Your task to perform on an android device: Open calendar and show me the third week of next month Image 0: 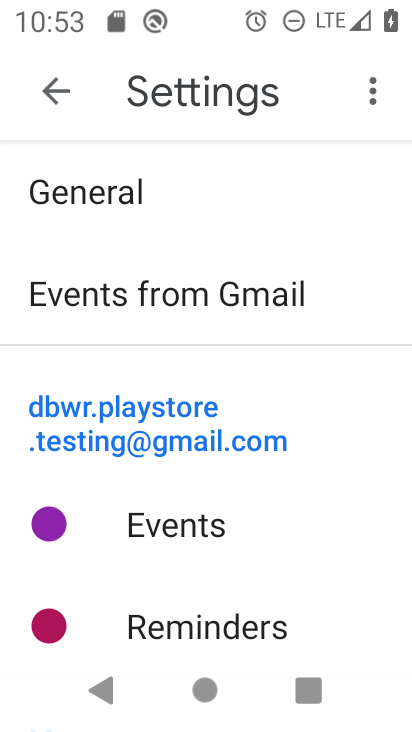
Step 0: press home button
Your task to perform on an android device: Open calendar and show me the third week of next month Image 1: 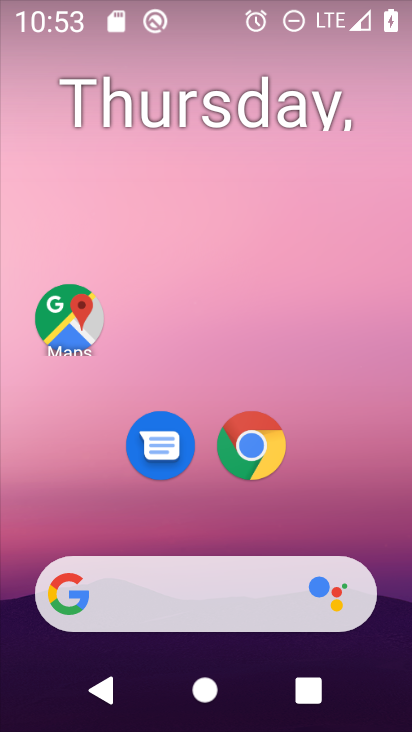
Step 1: drag from (403, 633) to (349, 56)
Your task to perform on an android device: Open calendar and show me the third week of next month Image 2: 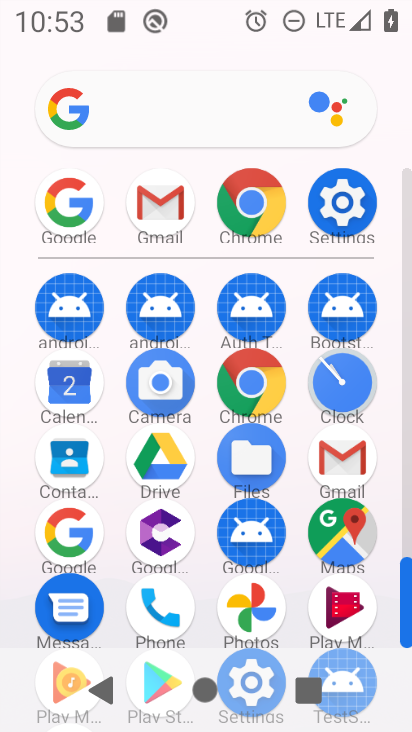
Step 2: click (337, 38)
Your task to perform on an android device: Open calendar and show me the third week of next month Image 3: 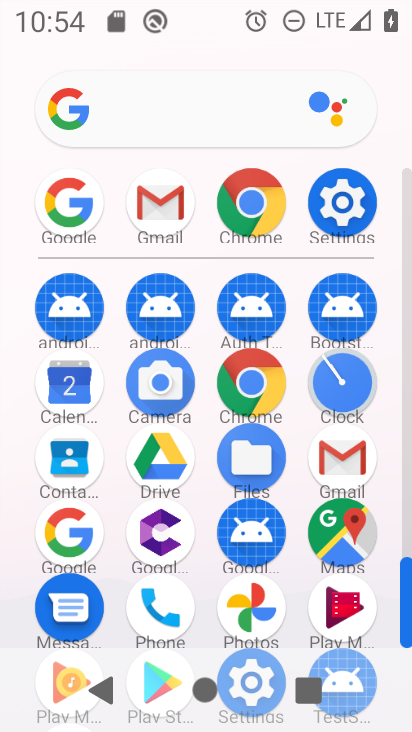
Step 3: click (75, 396)
Your task to perform on an android device: Open calendar and show me the third week of next month Image 4: 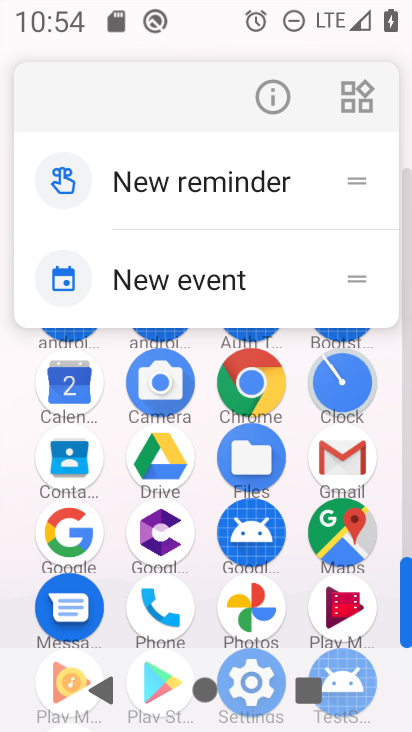
Step 4: click (66, 378)
Your task to perform on an android device: Open calendar and show me the third week of next month Image 5: 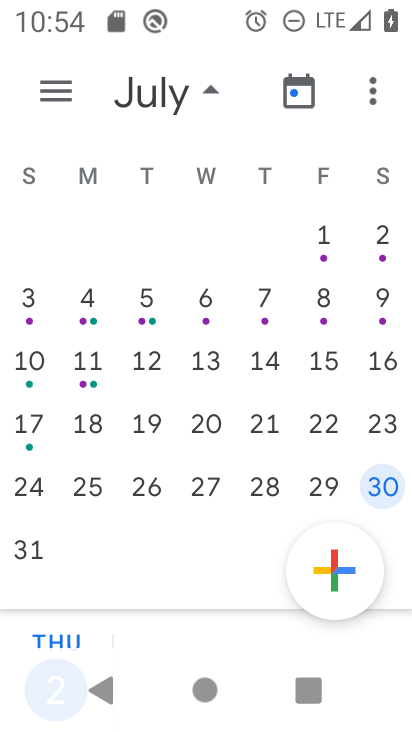
Step 5: drag from (396, 357) to (28, 370)
Your task to perform on an android device: Open calendar and show me the third week of next month Image 6: 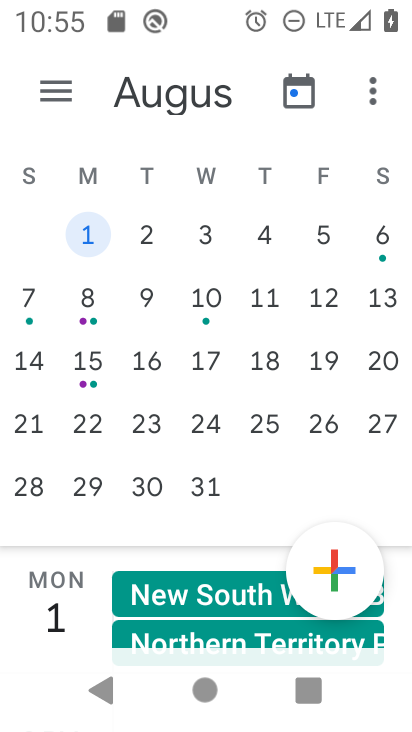
Step 6: click (231, 422)
Your task to perform on an android device: Open calendar and show me the third week of next month Image 7: 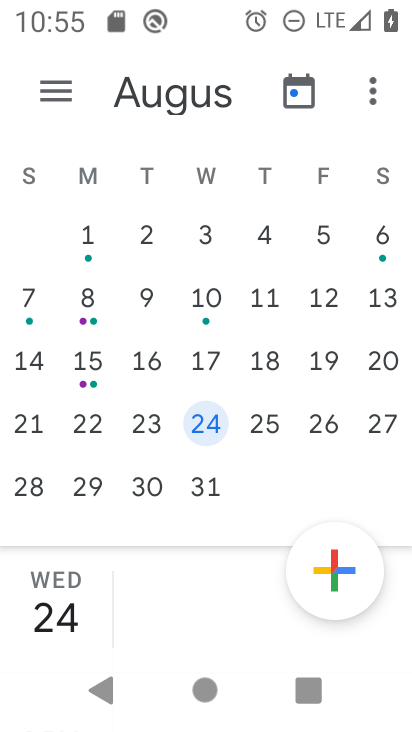
Step 7: task complete